Your task to perform on an android device: Open eBay Image 0: 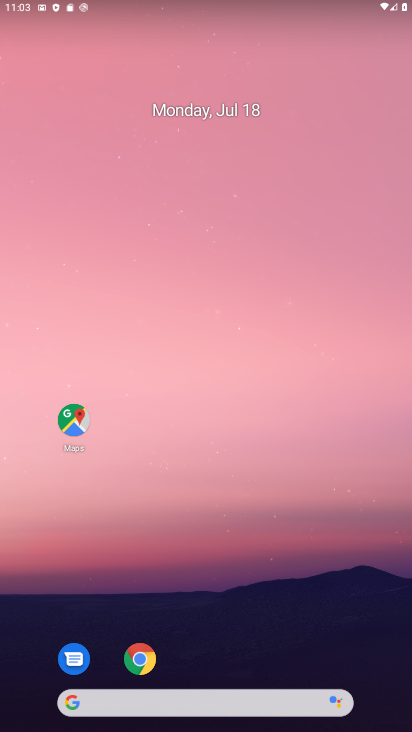
Step 0: drag from (234, 686) to (238, 172)
Your task to perform on an android device: Open eBay Image 1: 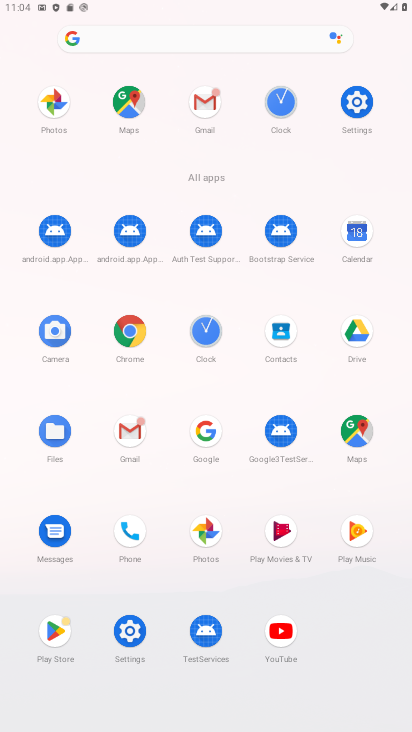
Step 1: click (138, 320)
Your task to perform on an android device: Open eBay Image 2: 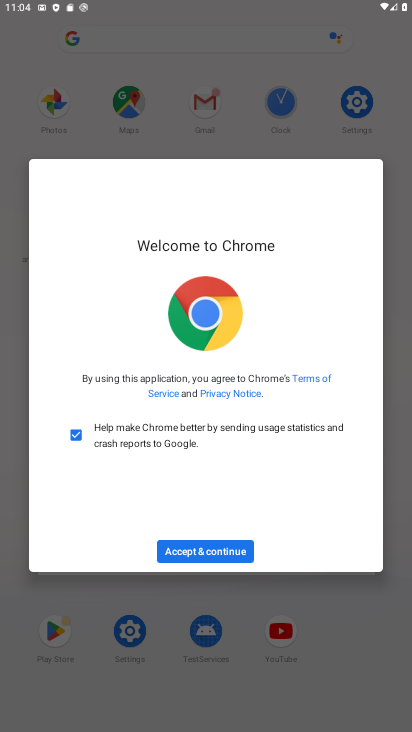
Step 2: click (206, 545)
Your task to perform on an android device: Open eBay Image 3: 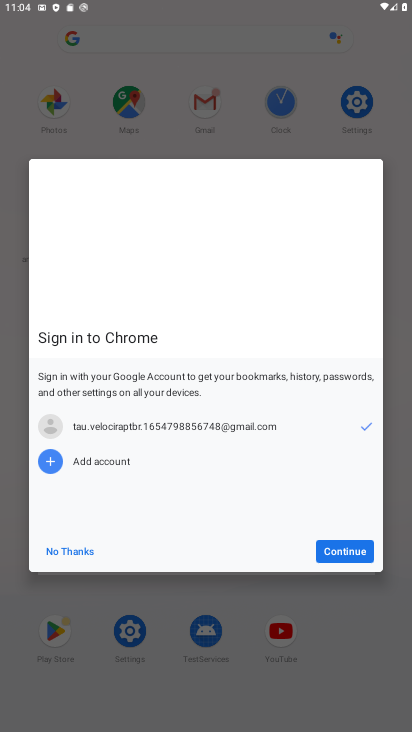
Step 3: click (369, 556)
Your task to perform on an android device: Open eBay Image 4: 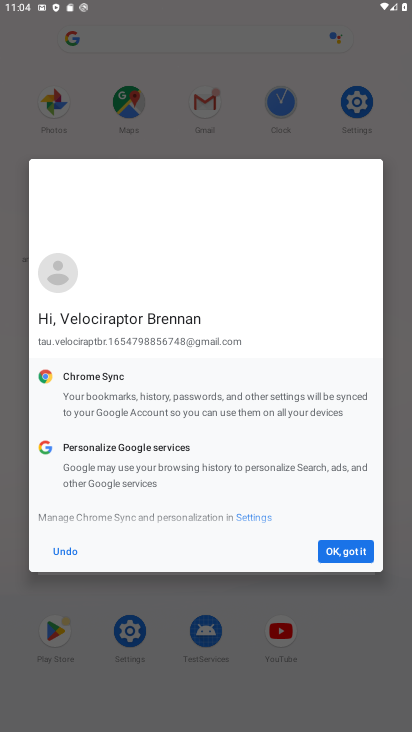
Step 4: click (361, 559)
Your task to perform on an android device: Open eBay Image 5: 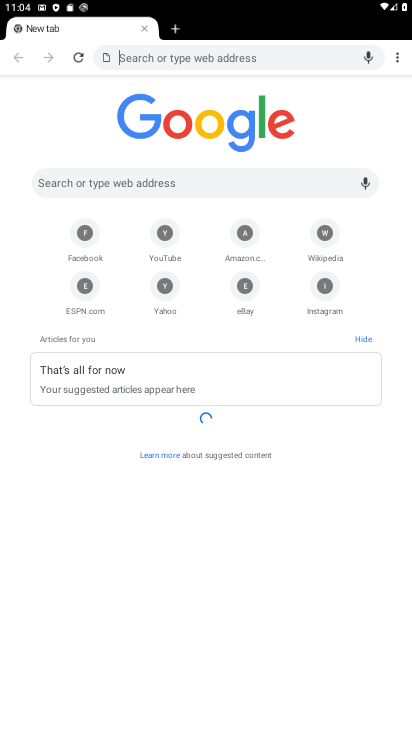
Step 5: click (247, 290)
Your task to perform on an android device: Open eBay Image 6: 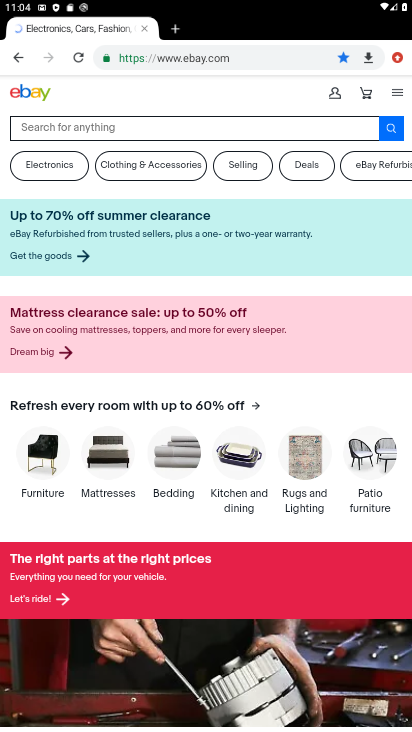
Step 6: task complete